Your task to perform on an android device: turn smart compose on in the gmail app Image 0: 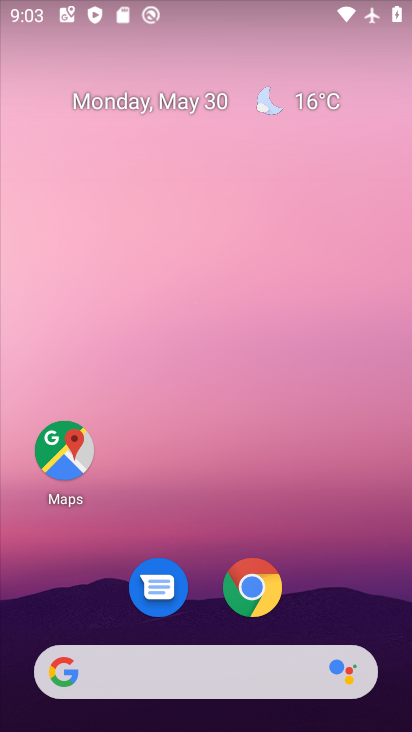
Step 0: drag from (219, 673) to (332, 208)
Your task to perform on an android device: turn smart compose on in the gmail app Image 1: 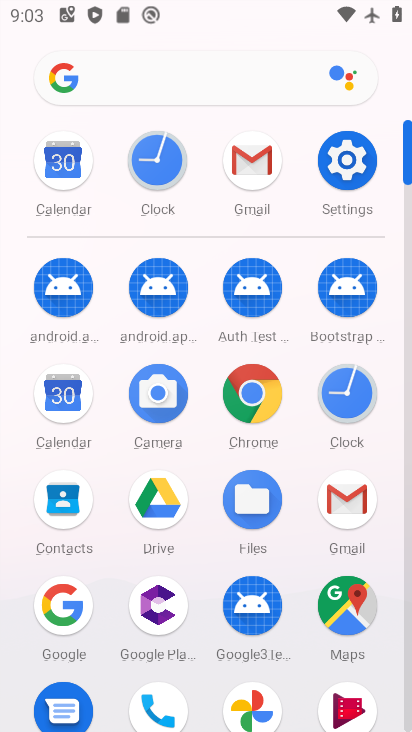
Step 1: click (341, 509)
Your task to perform on an android device: turn smart compose on in the gmail app Image 2: 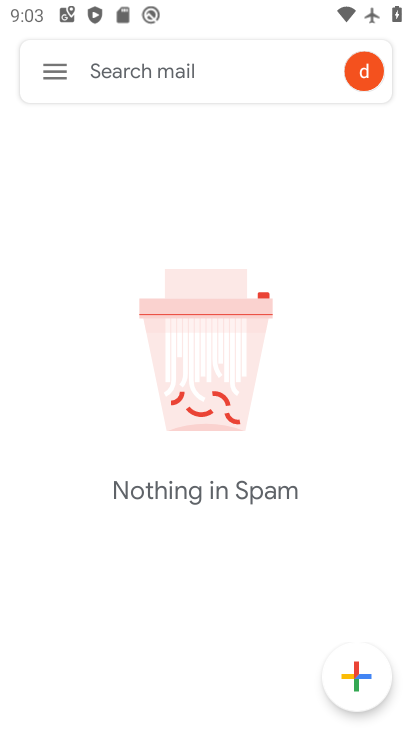
Step 2: click (51, 70)
Your task to perform on an android device: turn smart compose on in the gmail app Image 3: 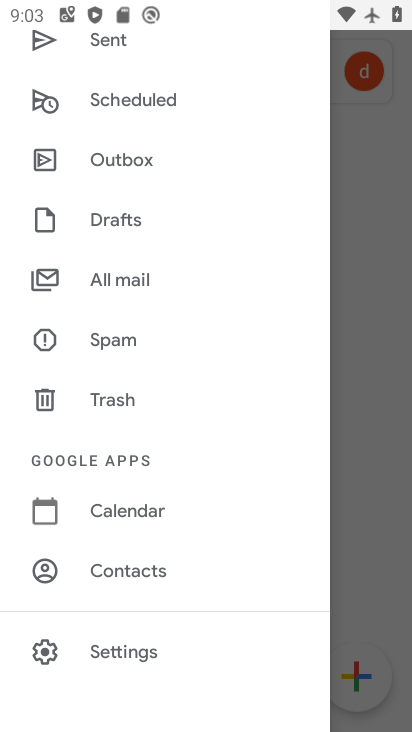
Step 3: click (105, 652)
Your task to perform on an android device: turn smart compose on in the gmail app Image 4: 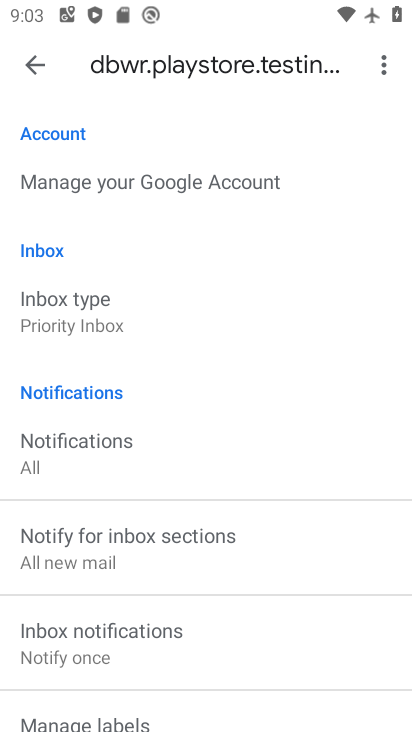
Step 4: task complete